Your task to perform on an android device: Find coffee shops on Maps Image 0: 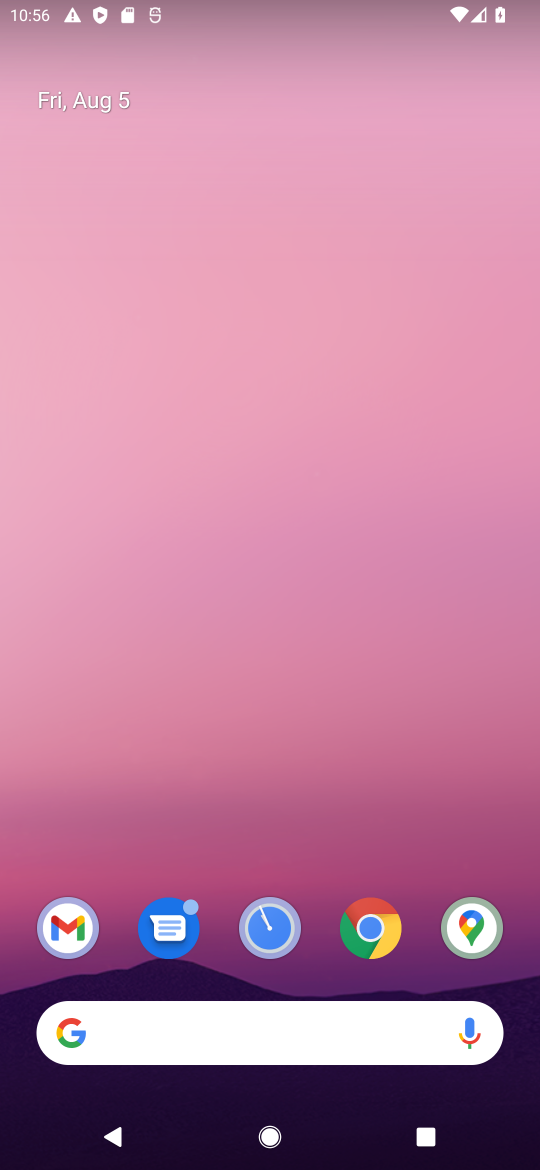
Step 0: click (477, 928)
Your task to perform on an android device: Find coffee shops on Maps Image 1: 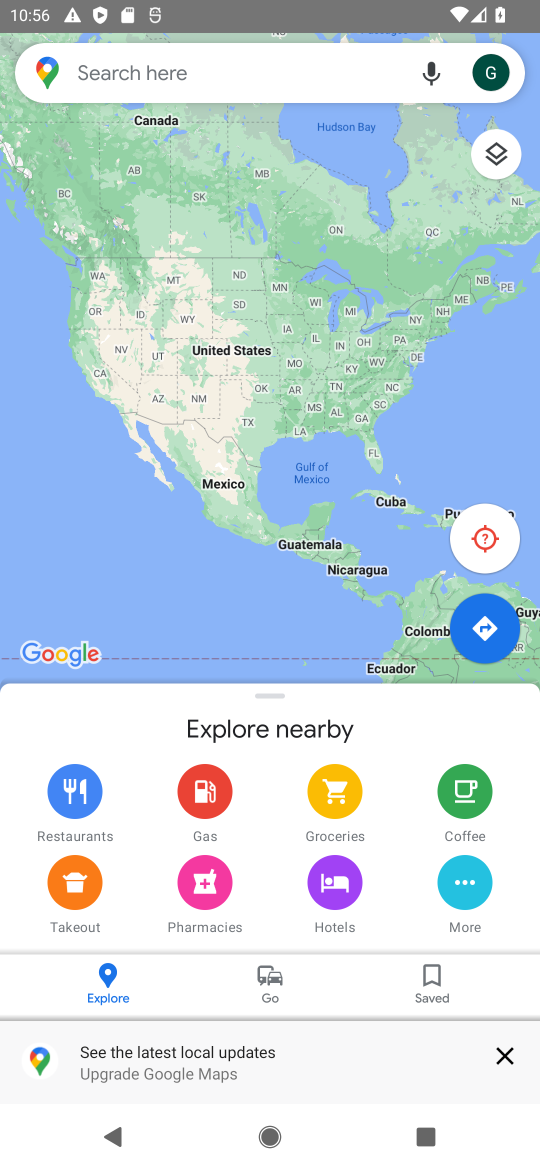
Step 1: click (159, 99)
Your task to perform on an android device: Find coffee shops on Maps Image 2: 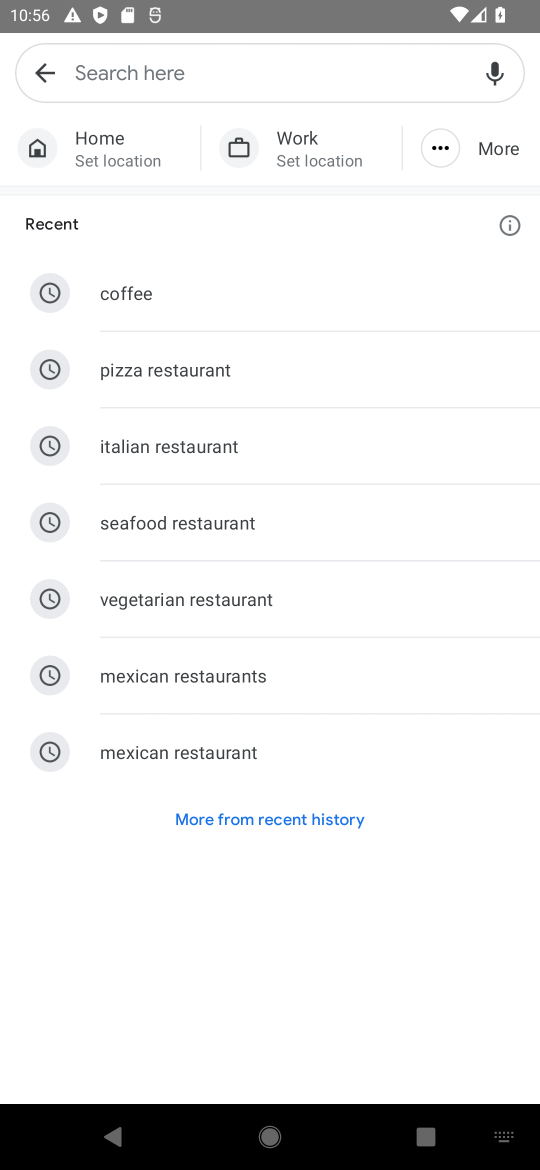
Step 2: click (131, 292)
Your task to perform on an android device: Find coffee shops on Maps Image 3: 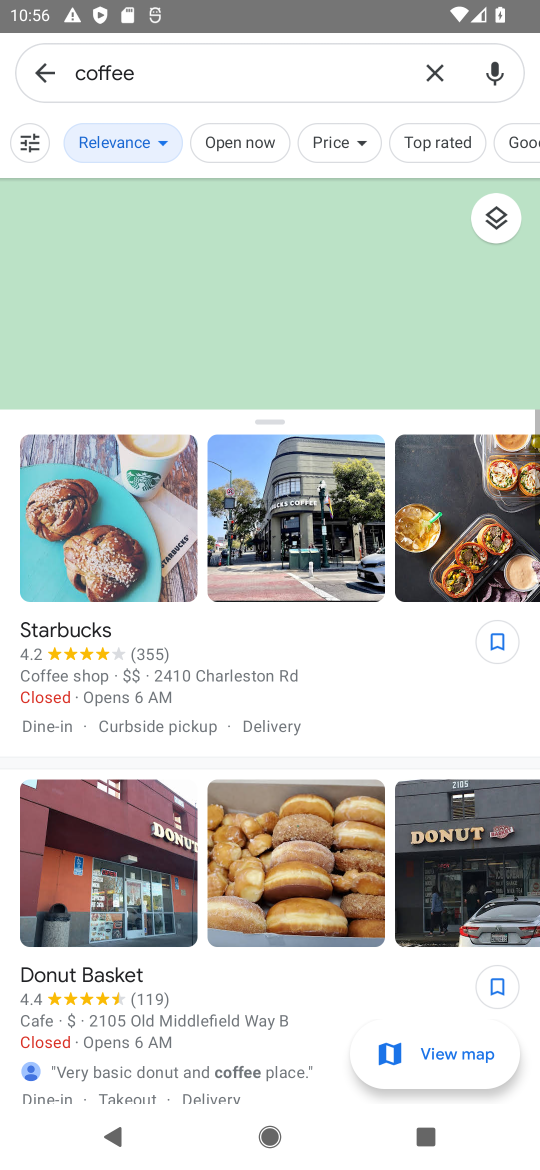
Step 3: task complete